Your task to perform on an android device: turn pop-ups on in chrome Image 0: 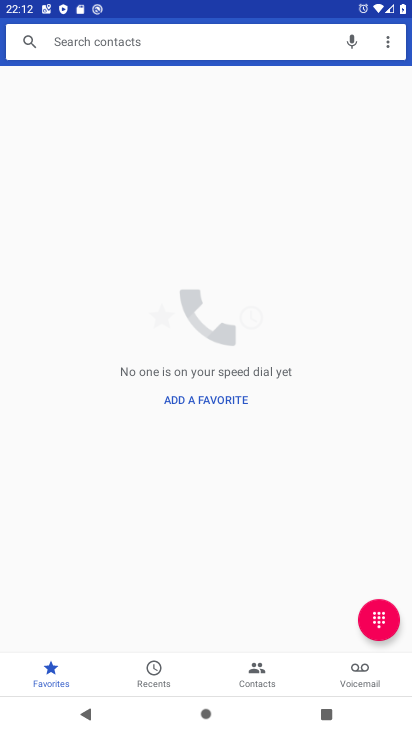
Step 0: click (104, 676)
Your task to perform on an android device: turn pop-ups on in chrome Image 1: 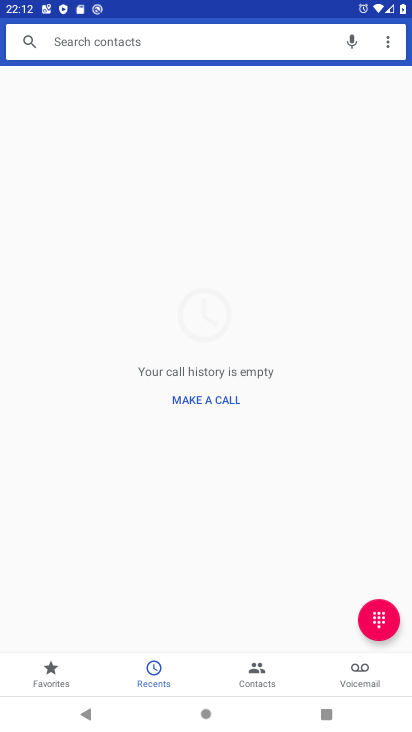
Step 1: press home button
Your task to perform on an android device: turn pop-ups on in chrome Image 2: 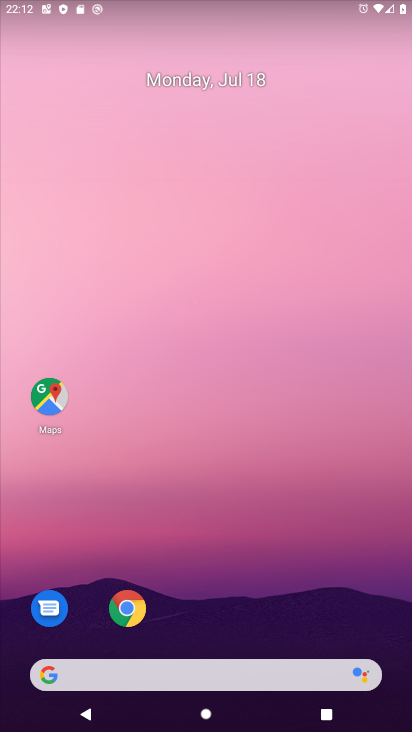
Step 2: click (142, 613)
Your task to perform on an android device: turn pop-ups on in chrome Image 3: 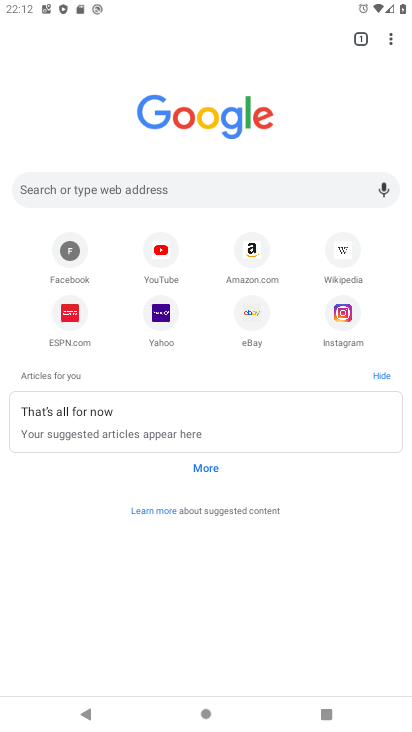
Step 3: click (399, 28)
Your task to perform on an android device: turn pop-ups on in chrome Image 4: 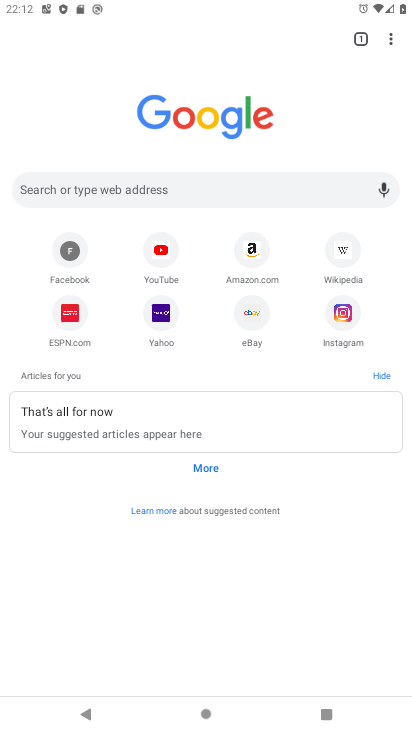
Step 4: click (389, 38)
Your task to perform on an android device: turn pop-ups on in chrome Image 5: 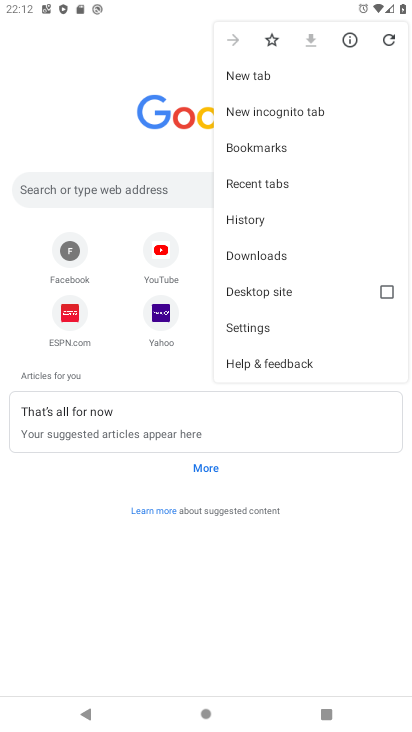
Step 5: click (260, 315)
Your task to perform on an android device: turn pop-ups on in chrome Image 6: 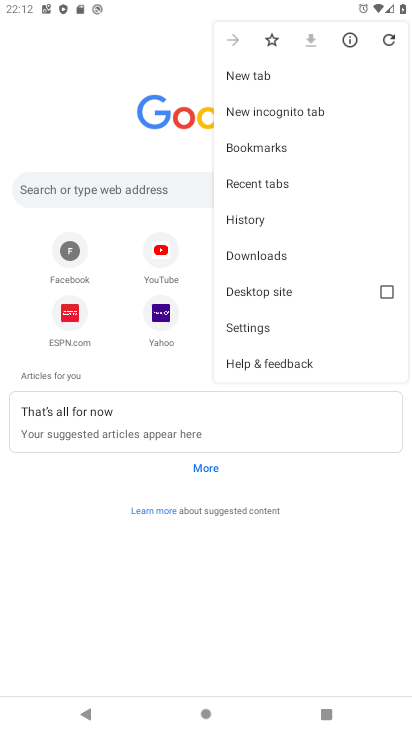
Step 6: click (260, 320)
Your task to perform on an android device: turn pop-ups on in chrome Image 7: 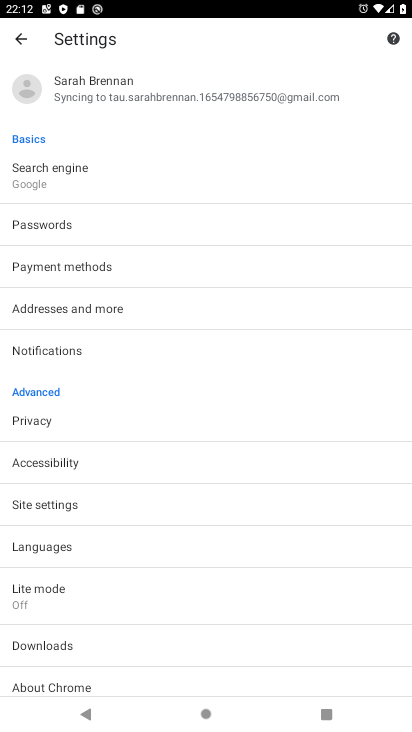
Step 7: click (41, 506)
Your task to perform on an android device: turn pop-ups on in chrome Image 8: 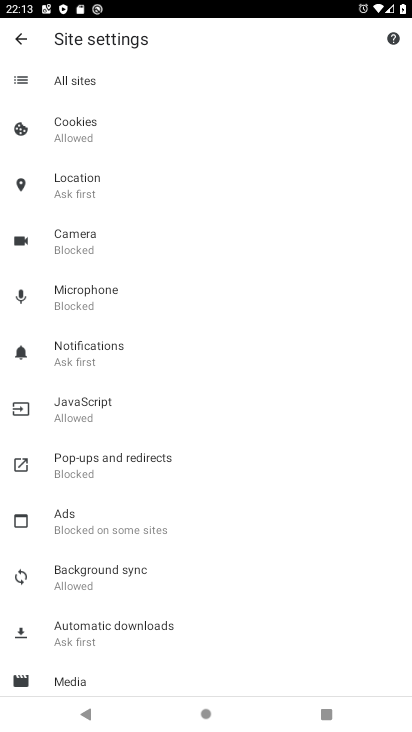
Step 8: click (242, 417)
Your task to perform on an android device: turn pop-ups on in chrome Image 9: 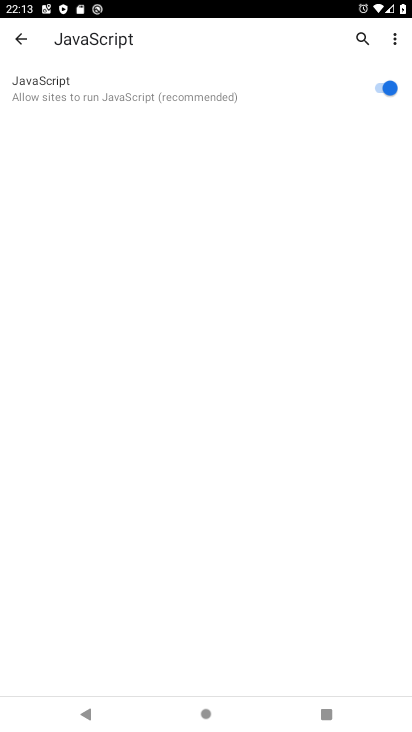
Step 9: click (12, 36)
Your task to perform on an android device: turn pop-ups on in chrome Image 10: 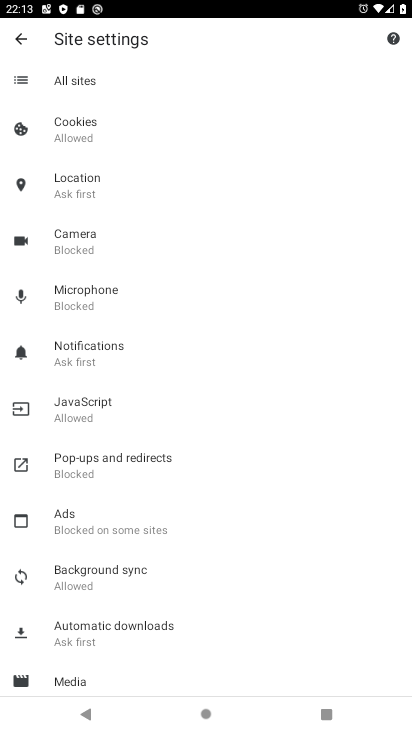
Step 10: click (106, 479)
Your task to perform on an android device: turn pop-ups on in chrome Image 11: 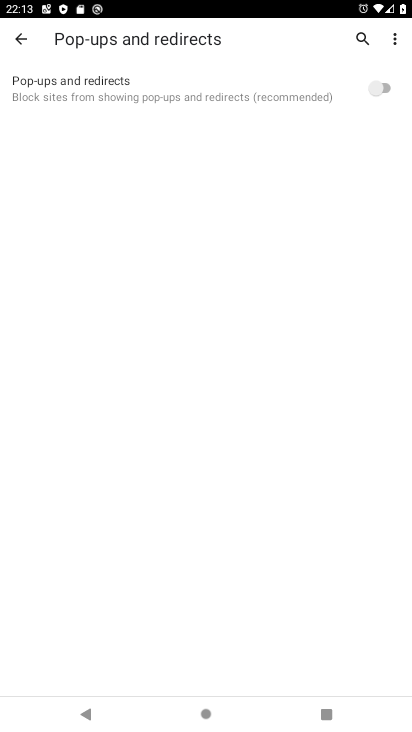
Step 11: click (378, 90)
Your task to perform on an android device: turn pop-ups on in chrome Image 12: 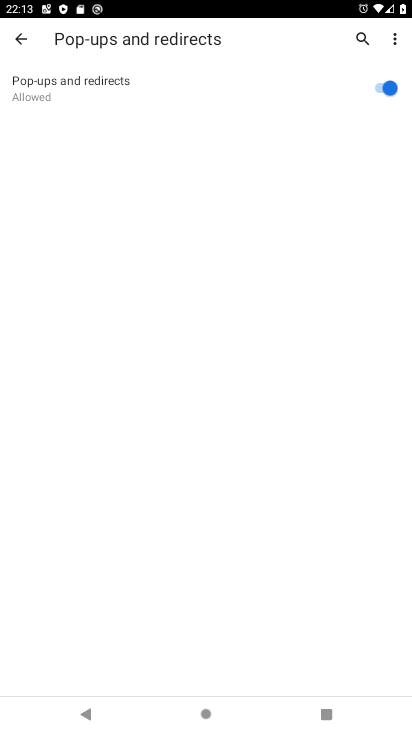
Step 12: task complete